Your task to perform on an android device: Check the news Image 0: 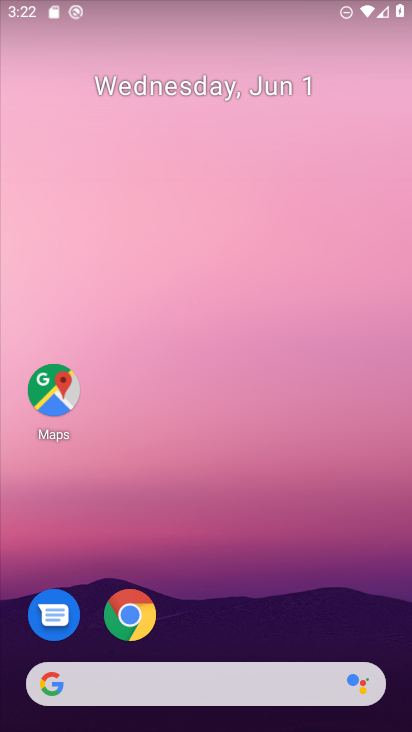
Step 0: press home button
Your task to perform on an android device: Check the news Image 1: 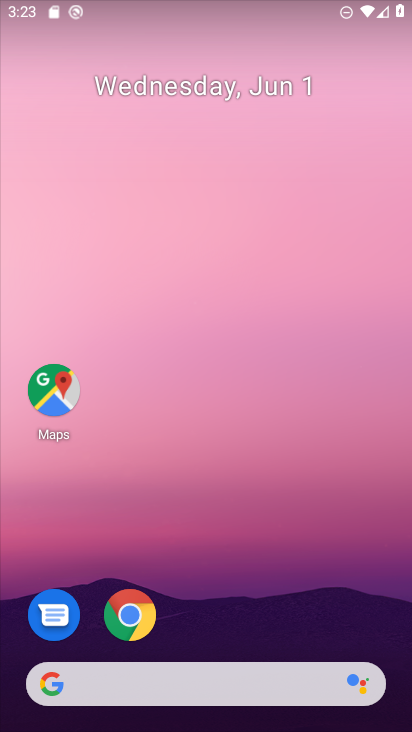
Step 1: task complete